Your task to perform on an android device: turn off priority inbox in the gmail app Image 0: 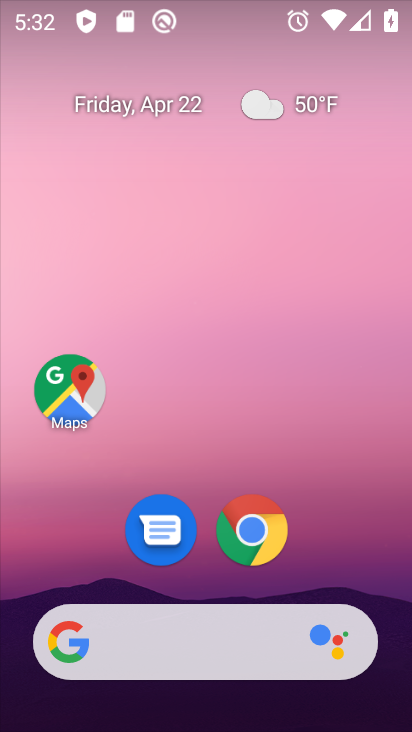
Step 0: drag from (362, 459) to (377, 184)
Your task to perform on an android device: turn off priority inbox in the gmail app Image 1: 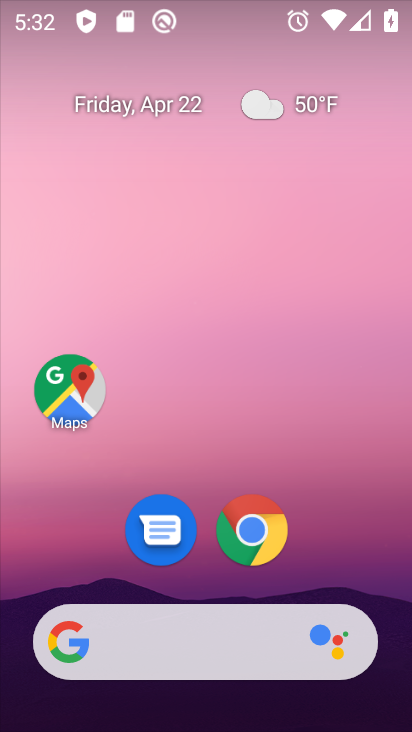
Step 1: drag from (367, 541) to (343, 181)
Your task to perform on an android device: turn off priority inbox in the gmail app Image 2: 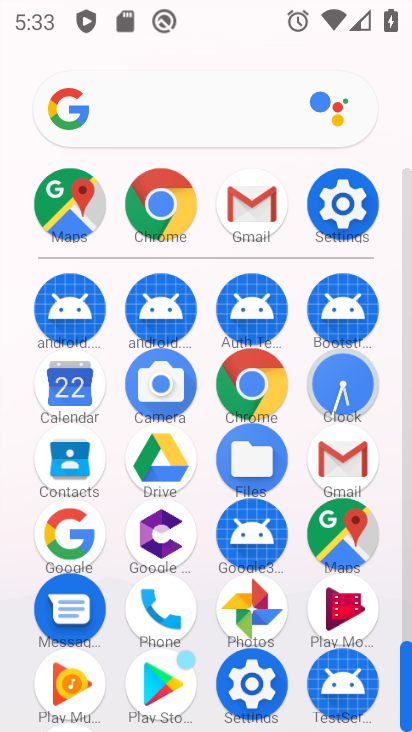
Step 2: click (336, 460)
Your task to perform on an android device: turn off priority inbox in the gmail app Image 3: 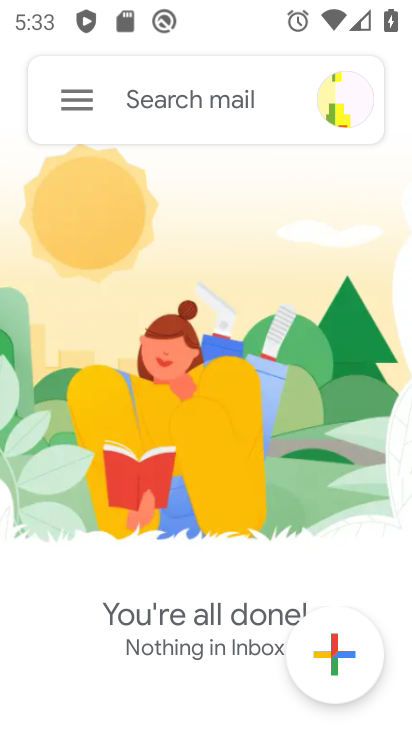
Step 3: click (75, 95)
Your task to perform on an android device: turn off priority inbox in the gmail app Image 4: 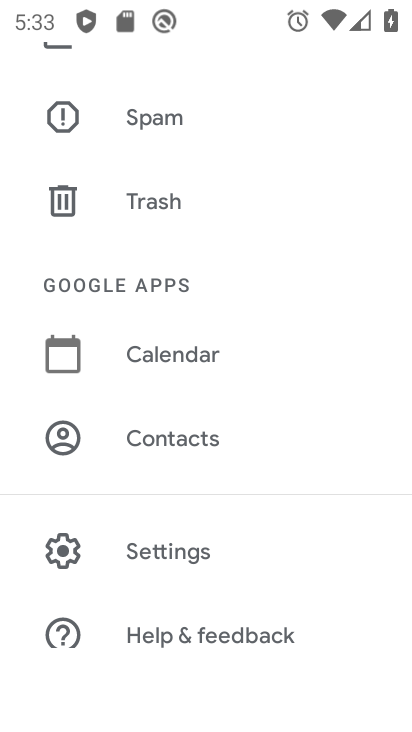
Step 4: click (185, 552)
Your task to perform on an android device: turn off priority inbox in the gmail app Image 5: 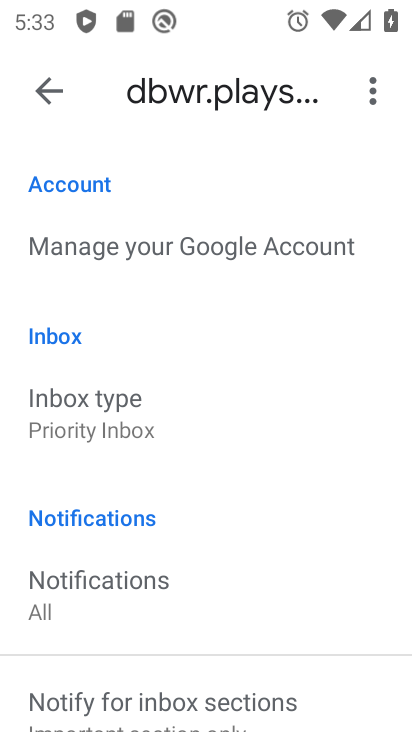
Step 5: click (77, 410)
Your task to perform on an android device: turn off priority inbox in the gmail app Image 6: 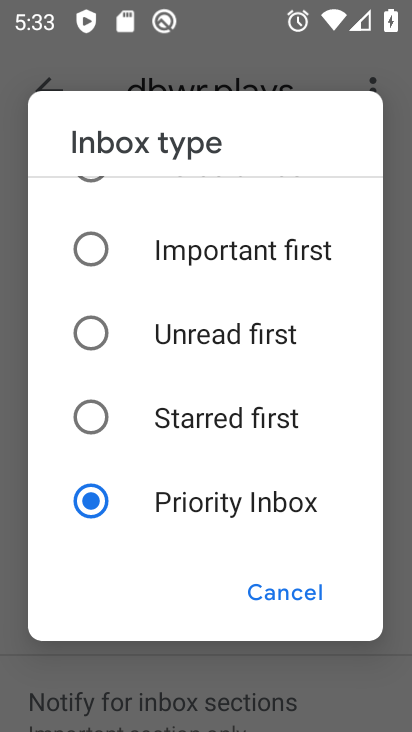
Step 6: drag from (276, 224) to (246, 566)
Your task to perform on an android device: turn off priority inbox in the gmail app Image 7: 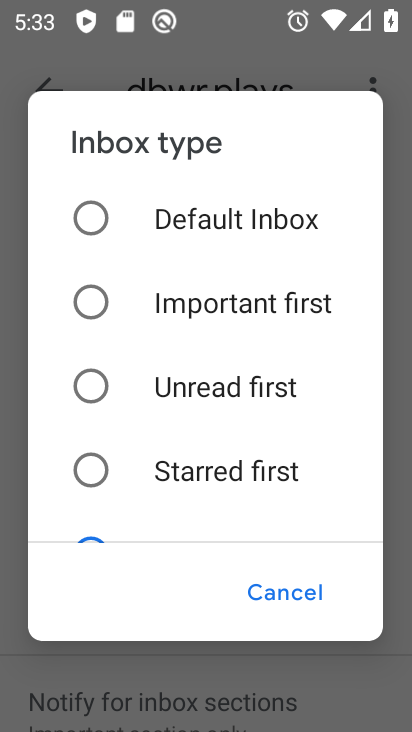
Step 7: click (225, 216)
Your task to perform on an android device: turn off priority inbox in the gmail app Image 8: 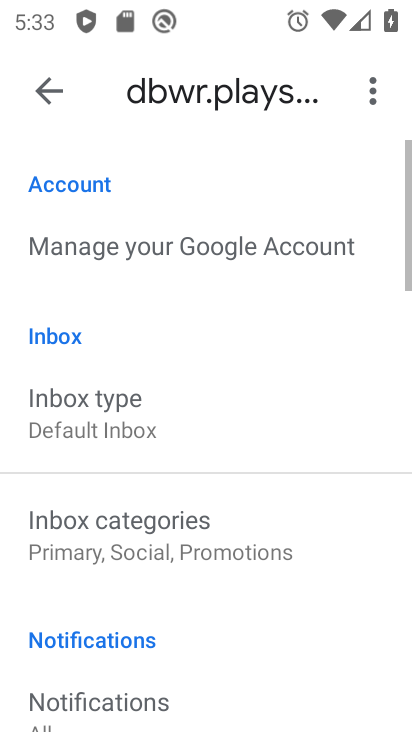
Step 8: task complete